Your task to perform on an android device: turn on wifi Image 0: 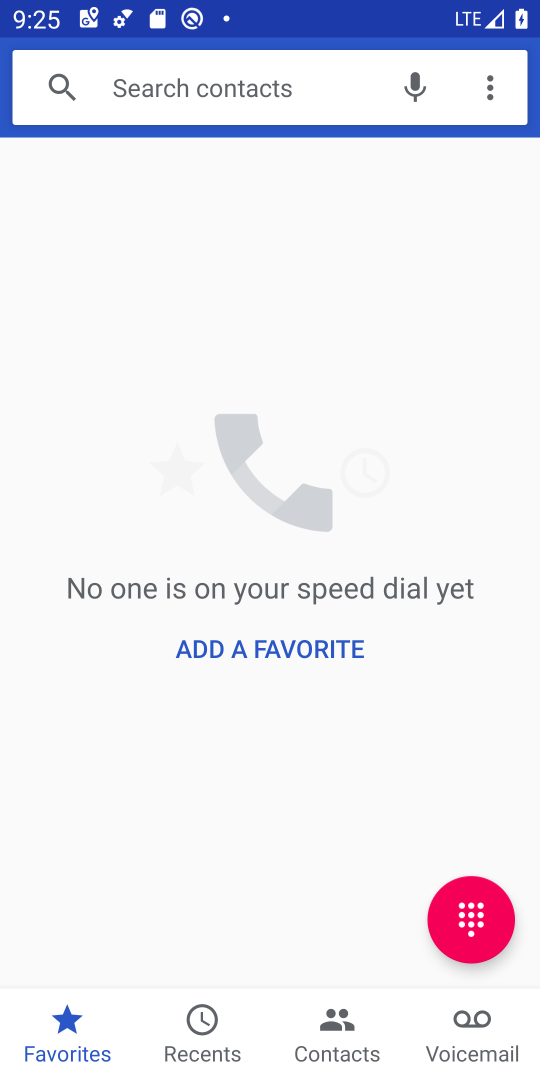
Step 0: press home button
Your task to perform on an android device: turn on wifi Image 1: 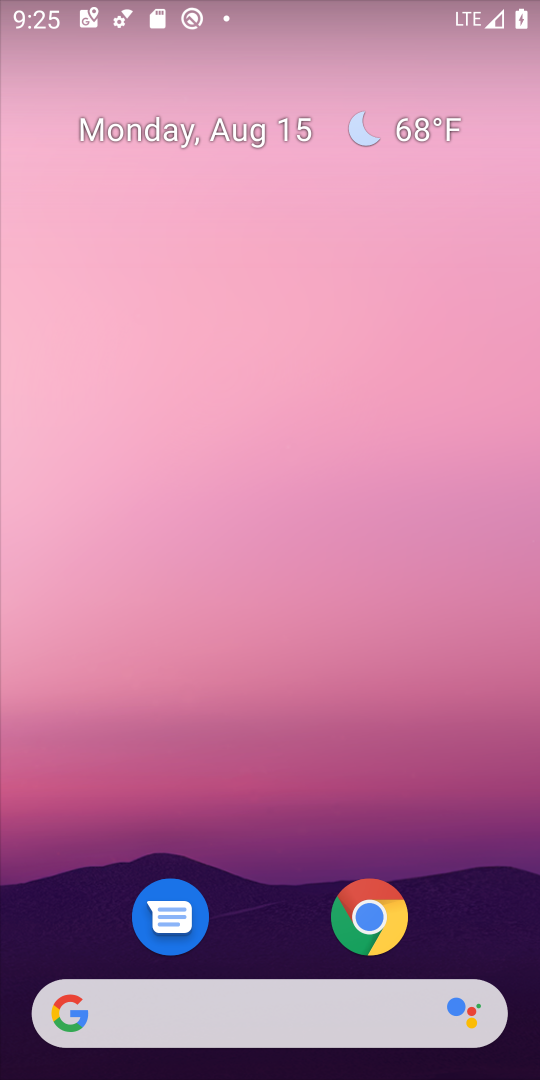
Step 1: drag from (320, 750) to (318, 12)
Your task to perform on an android device: turn on wifi Image 2: 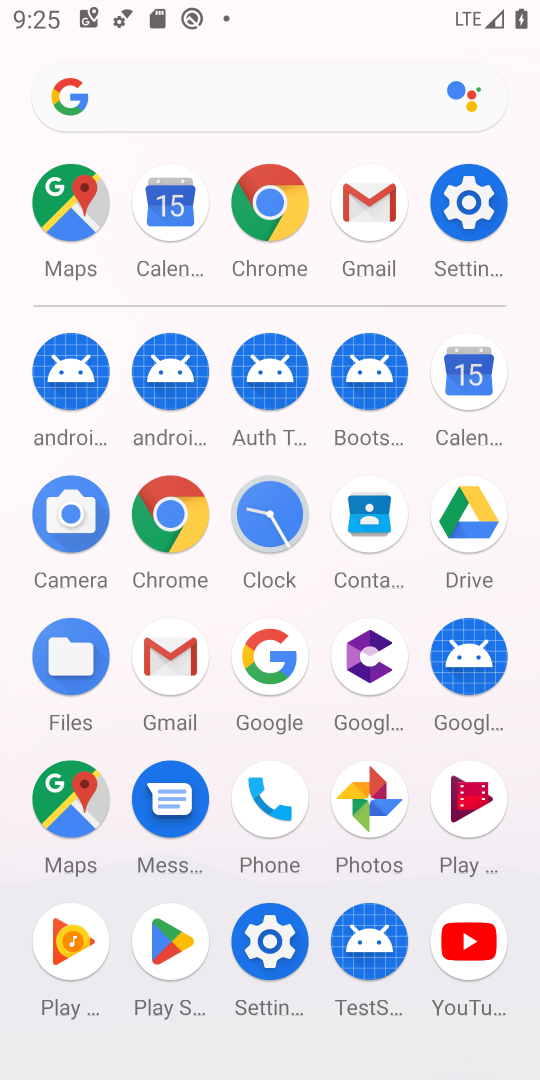
Step 2: click (467, 192)
Your task to perform on an android device: turn on wifi Image 3: 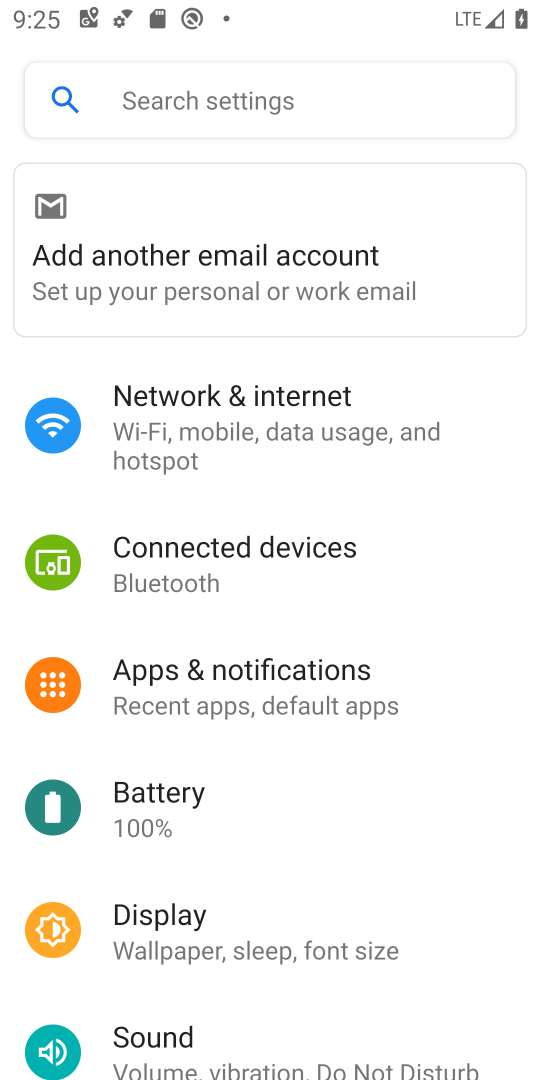
Step 3: click (326, 401)
Your task to perform on an android device: turn on wifi Image 4: 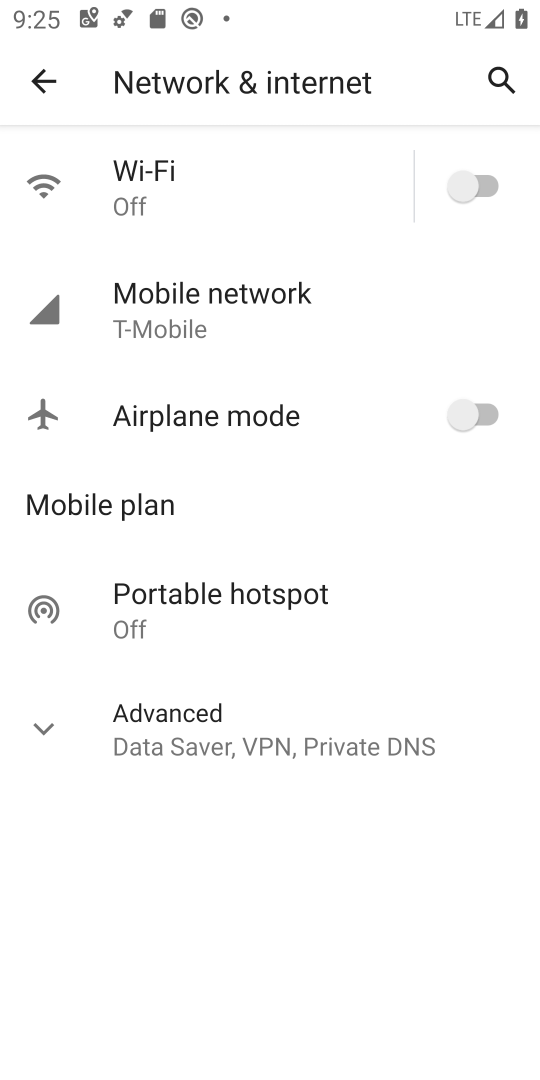
Step 4: click (481, 182)
Your task to perform on an android device: turn on wifi Image 5: 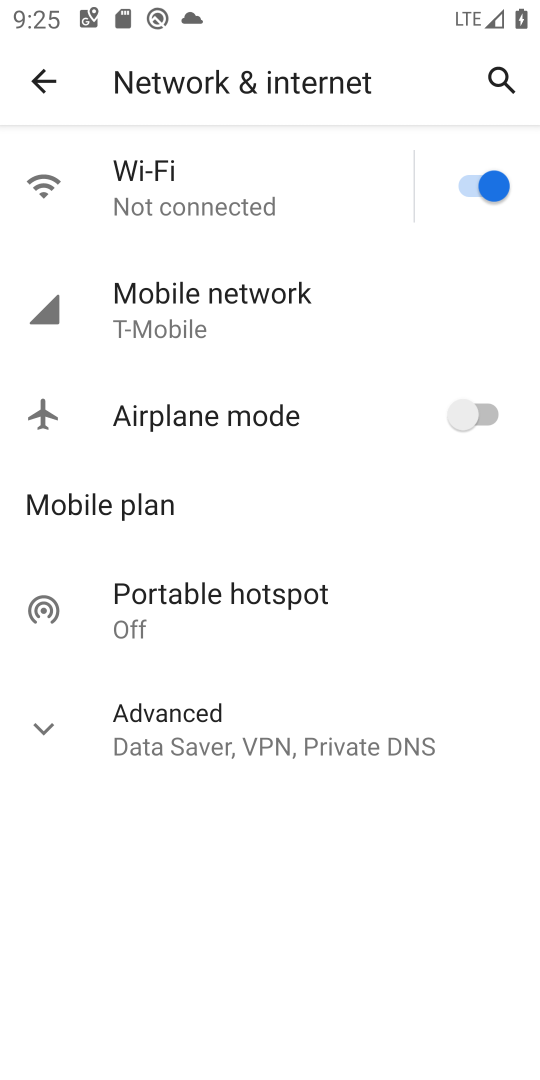
Step 5: task complete